Your task to perform on an android device: Open Maps and search for coffee Image 0: 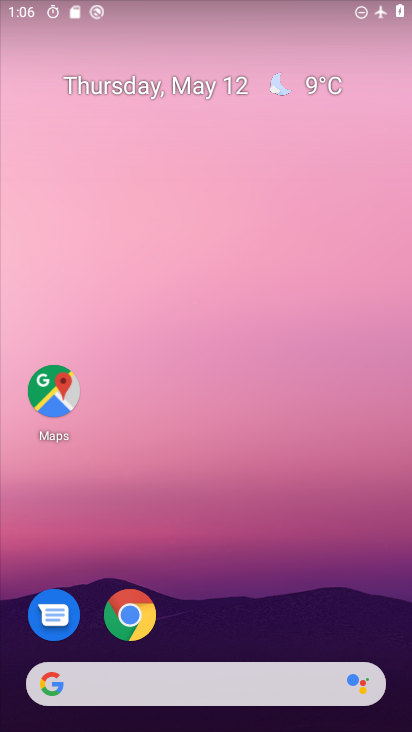
Step 0: click (33, 404)
Your task to perform on an android device: Open Maps and search for coffee Image 1: 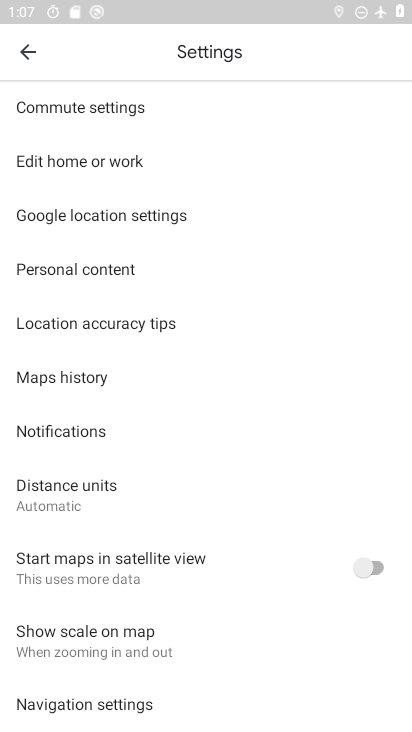
Step 1: click (22, 47)
Your task to perform on an android device: Open Maps and search for coffee Image 2: 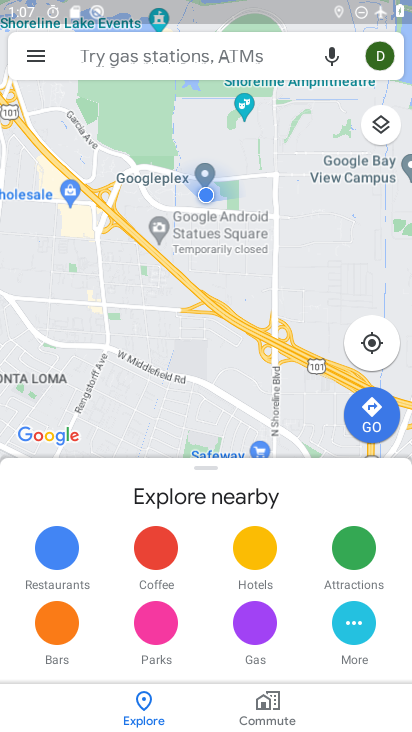
Step 2: click (149, 51)
Your task to perform on an android device: Open Maps and search for coffee Image 3: 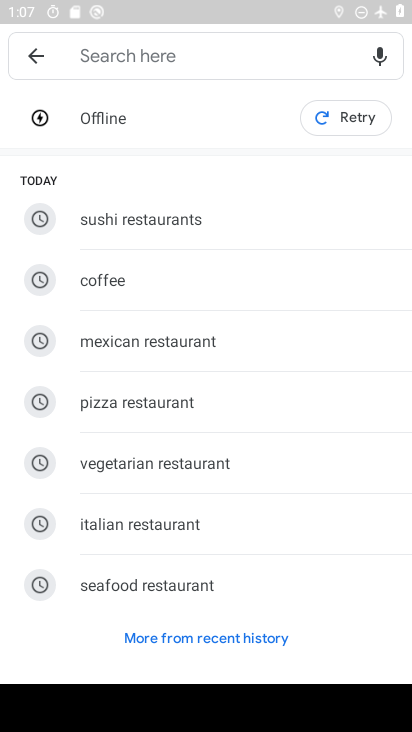
Step 3: click (127, 279)
Your task to perform on an android device: Open Maps and search for coffee Image 4: 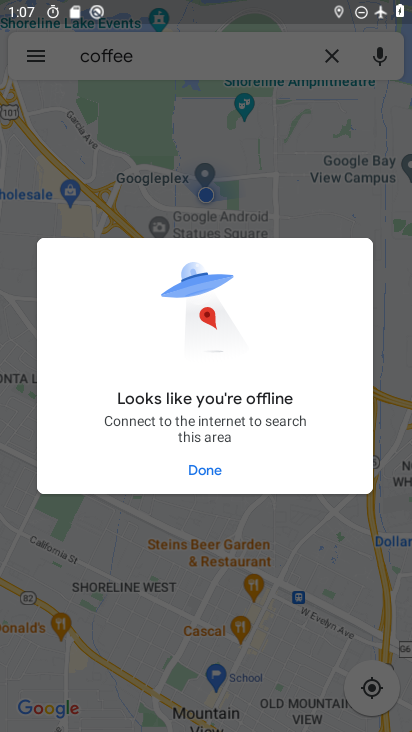
Step 4: task complete